Your task to perform on an android device: Open calendar and show me the fourth week of next month Image 0: 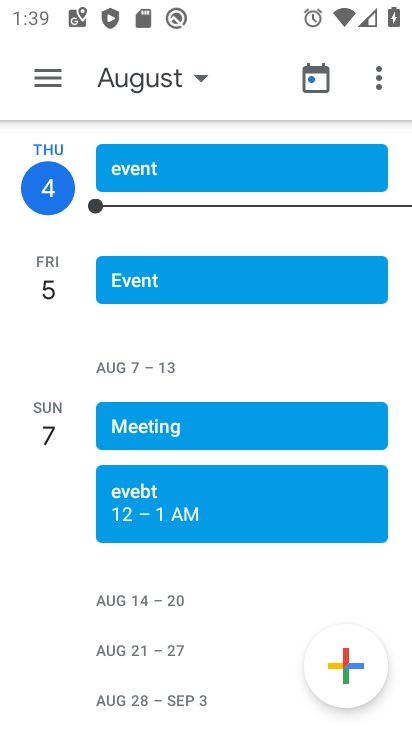
Step 0: press home button
Your task to perform on an android device: Open calendar and show me the fourth week of next month Image 1: 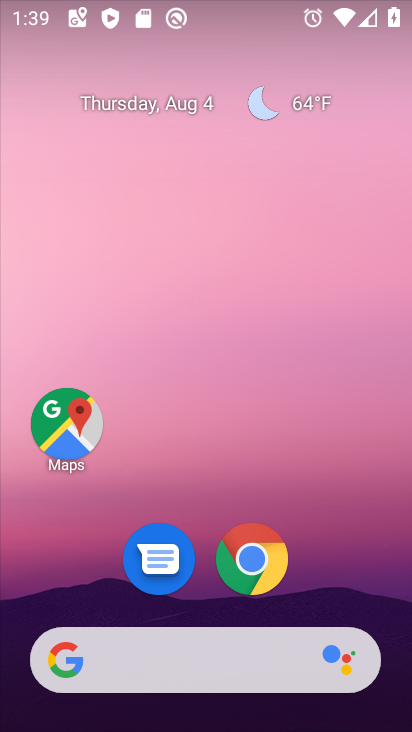
Step 1: drag from (191, 678) to (235, 167)
Your task to perform on an android device: Open calendar and show me the fourth week of next month Image 2: 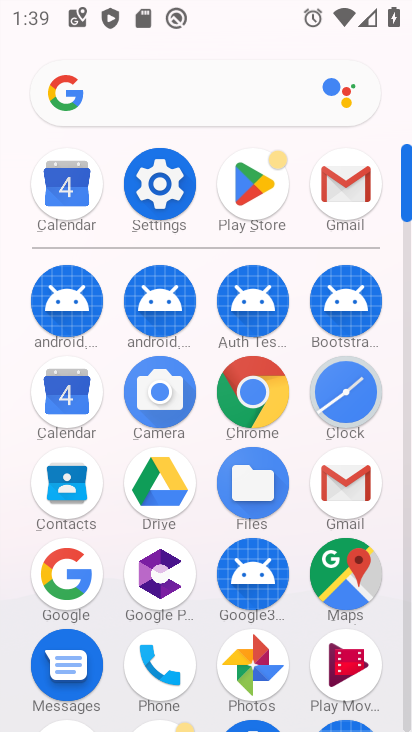
Step 2: click (73, 396)
Your task to perform on an android device: Open calendar and show me the fourth week of next month Image 3: 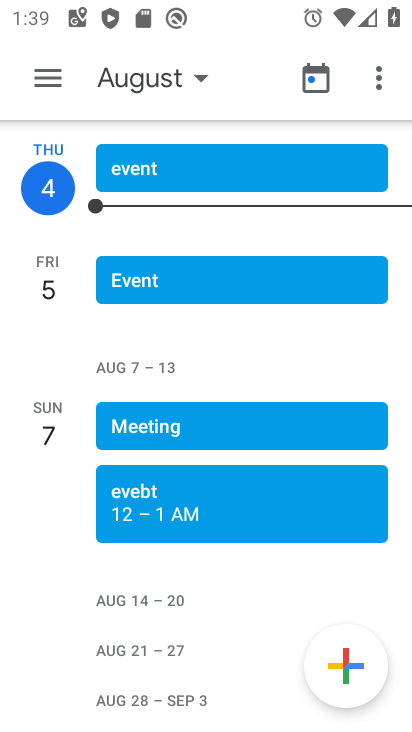
Step 3: click (199, 77)
Your task to perform on an android device: Open calendar and show me the fourth week of next month Image 4: 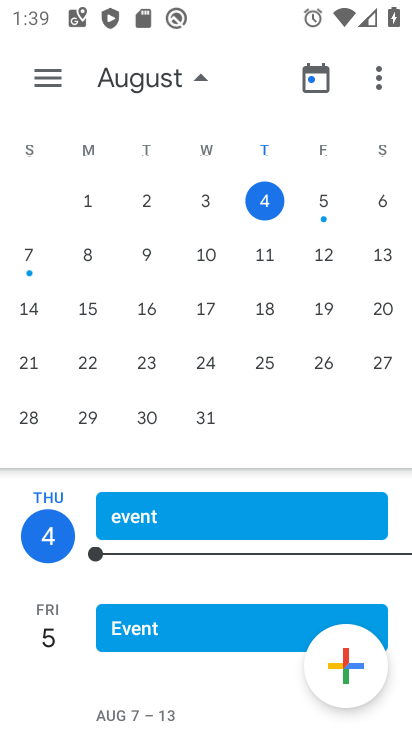
Step 4: drag from (355, 329) to (16, 295)
Your task to perform on an android device: Open calendar and show me the fourth week of next month Image 5: 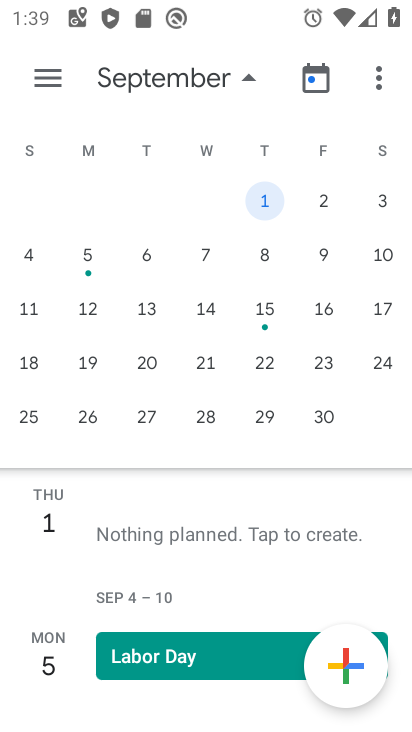
Step 5: click (88, 420)
Your task to perform on an android device: Open calendar and show me the fourth week of next month Image 6: 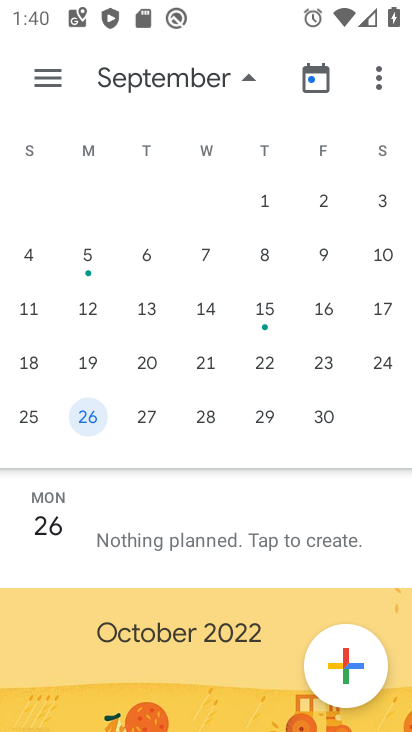
Step 6: click (42, 73)
Your task to perform on an android device: Open calendar and show me the fourth week of next month Image 7: 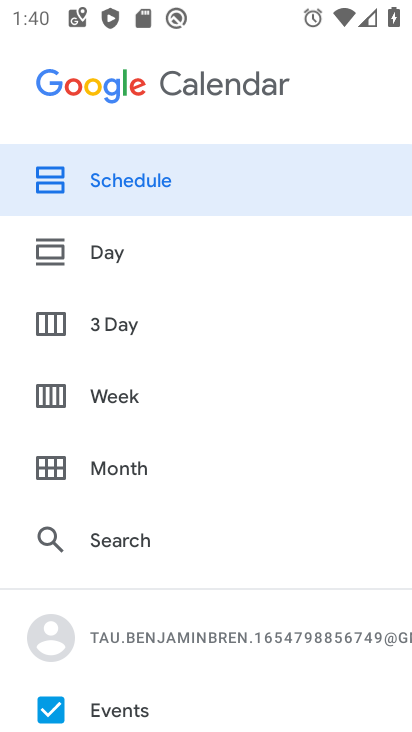
Step 7: click (112, 399)
Your task to perform on an android device: Open calendar and show me the fourth week of next month Image 8: 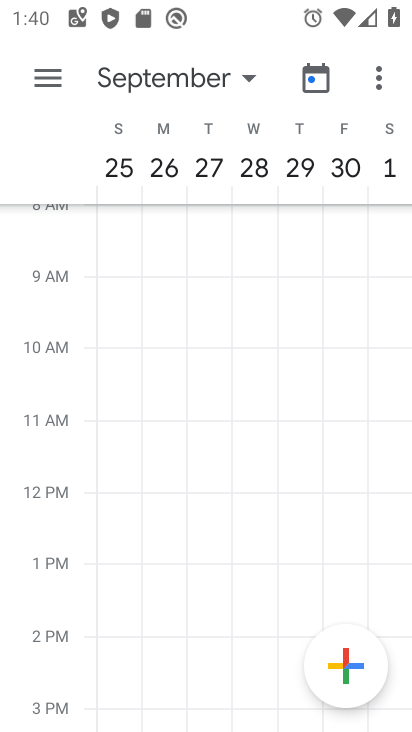
Step 8: task complete